Your task to perform on an android device: Do I have any events tomorrow? Image 0: 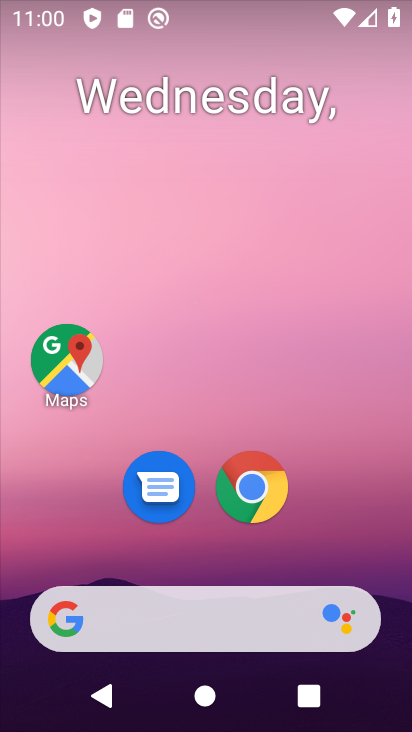
Step 0: drag from (336, 549) to (369, 40)
Your task to perform on an android device: Do I have any events tomorrow? Image 1: 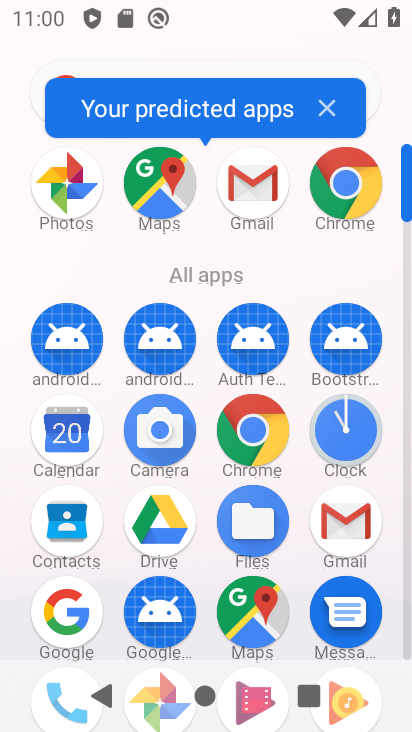
Step 1: click (58, 433)
Your task to perform on an android device: Do I have any events tomorrow? Image 2: 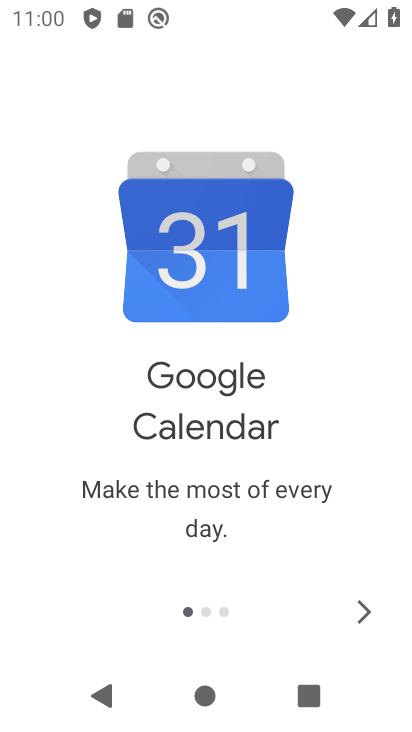
Step 2: click (363, 609)
Your task to perform on an android device: Do I have any events tomorrow? Image 3: 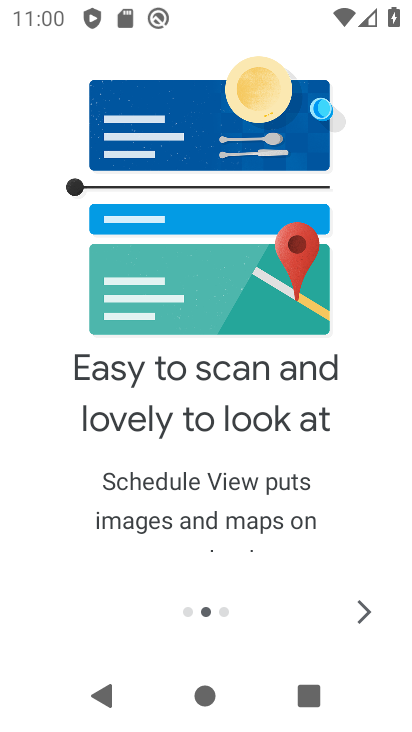
Step 3: click (363, 609)
Your task to perform on an android device: Do I have any events tomorrow? Image 4: 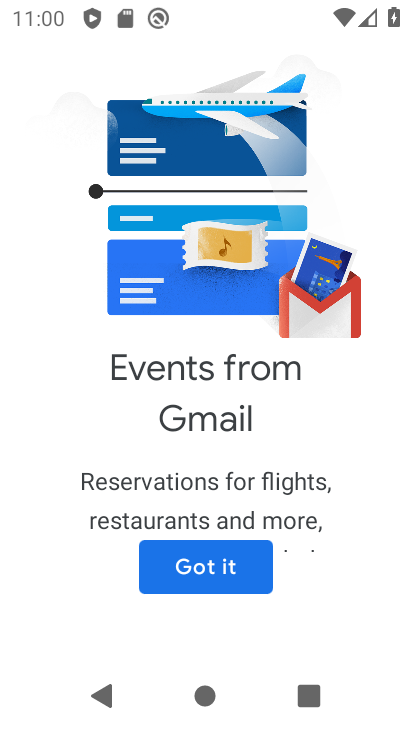
Step 4: click (251, 569)
Your task to perform on an android device: Do I have any events tomorrow? Image 5: 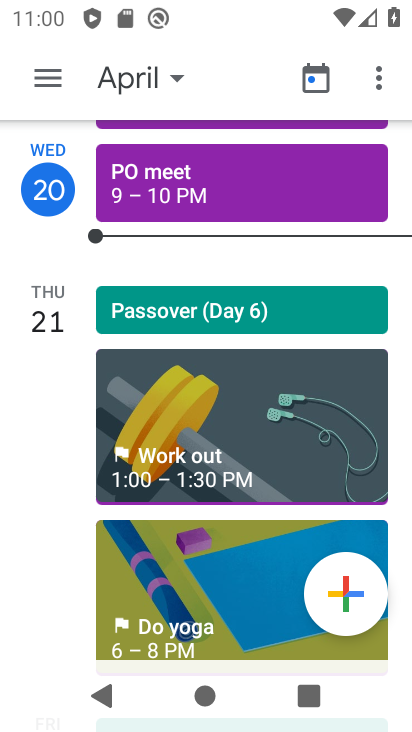
Step 5: task complete